Your task to perform on an android device: Go to Reddit.com Image 0: 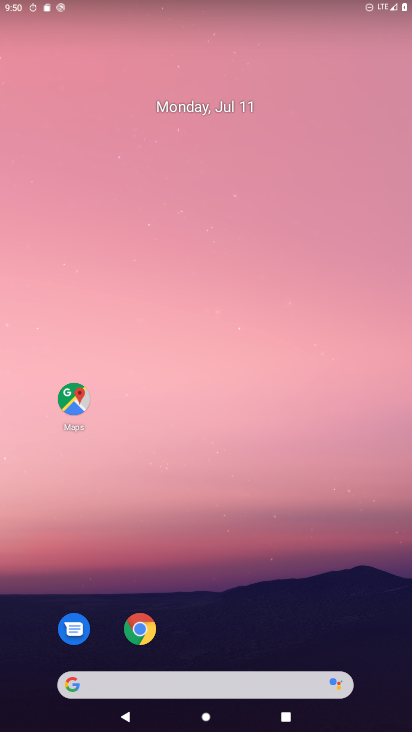
Step 0: click (193, 679)
Your task to perform on an android device: Go to Reddit.com Image 1: 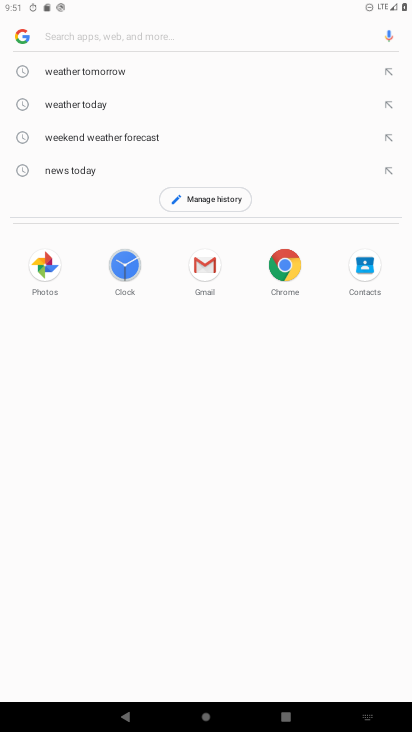
Step 1: type "reddit.com"
Your task to perform on an android device: Go to Reddit.com Image 2: 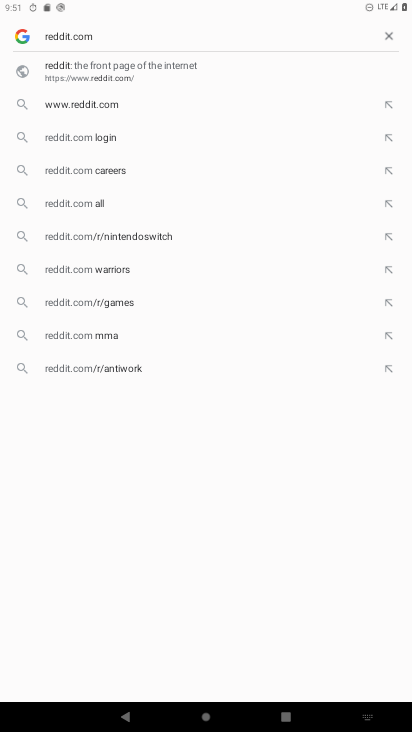
Step 2: click (147, 61)
Your task to perform on an android device: Go to Reddit.com Image 3: 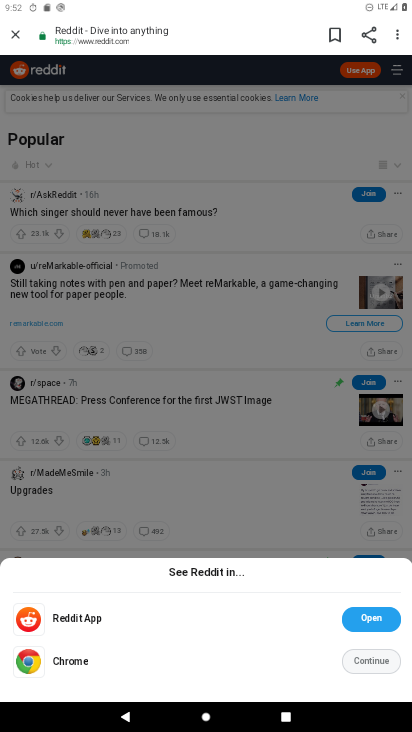
Step 3: task complete